Your task to perform on an android device: add a contact Image 0: 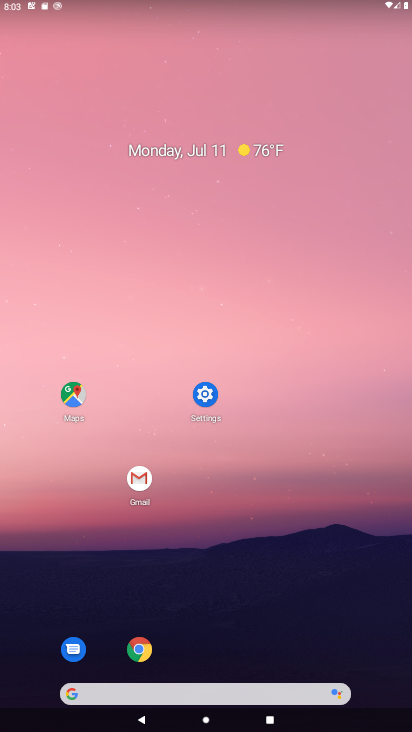
Step 0: drag from (387, 690) to (294, 154)
Your task to perform on an android device: add a contact Image 1: 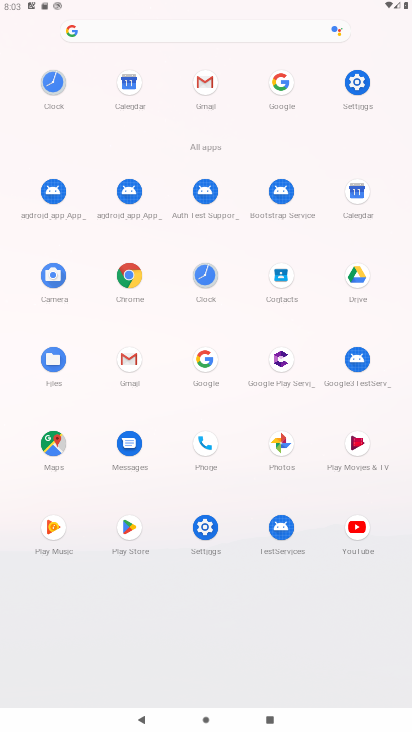
Step 1: click (283, 274)
Your task to perform on an android device: add a contact Image 2: 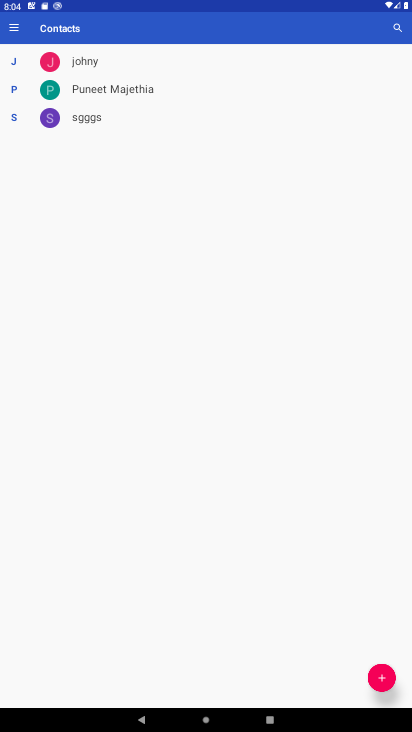
Step 2: click (380, 680)
Your task to perform on an android device: add a contact Image 3: 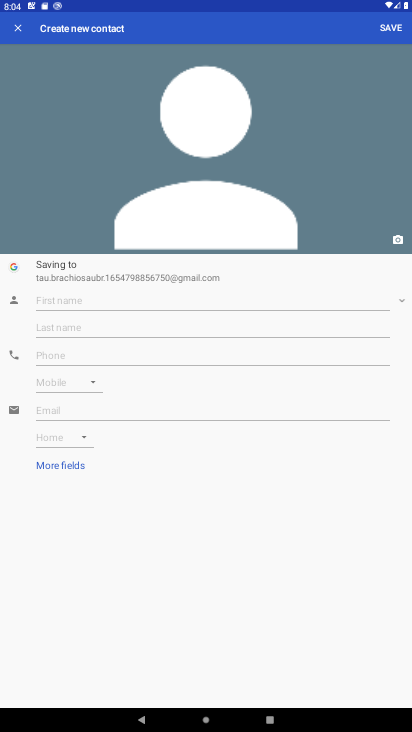
Step 3: click (105, 299)
Your task to perform on an android device: add a contact Image 4: 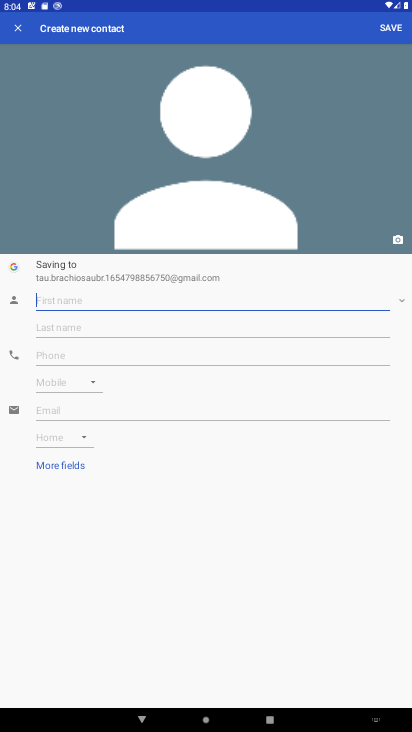
Step 4: type "yssjysfdyhfyf"
Your task to perform on an android device: add a contact Image 5: 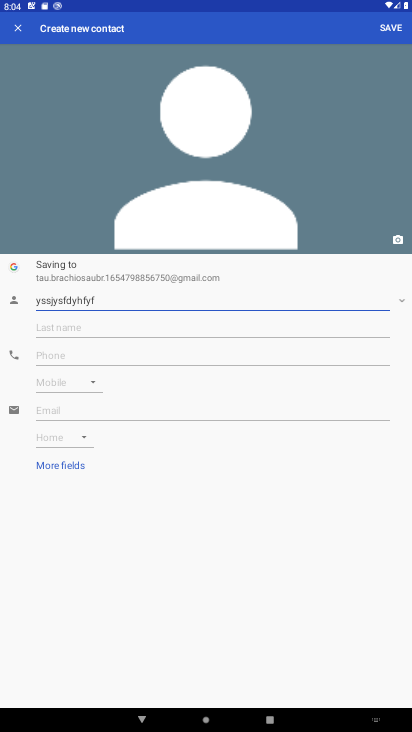
Step 5: click (102, 324)
Your task to perform on an android device: add a contact Image 6: 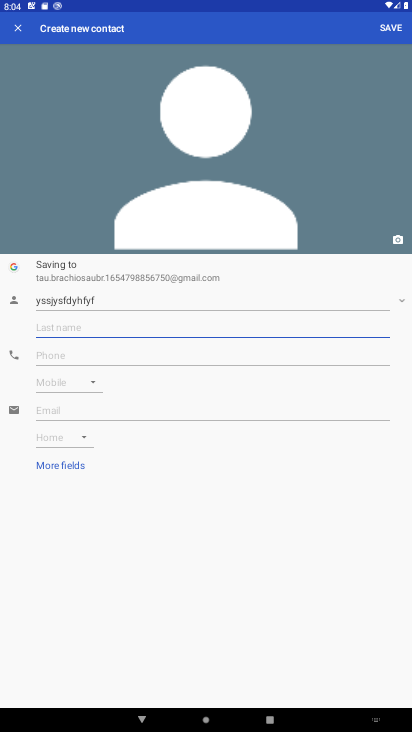
Step 6: type "ddhfcabmtdc"
Your task to perform on an android device: add a contact Image 7: 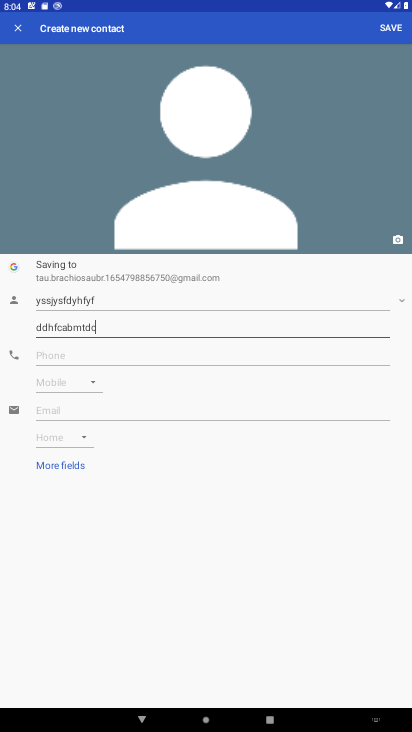
Step 7: click (131, 356)
Your task to perform on an android device: add a contact Image 8: 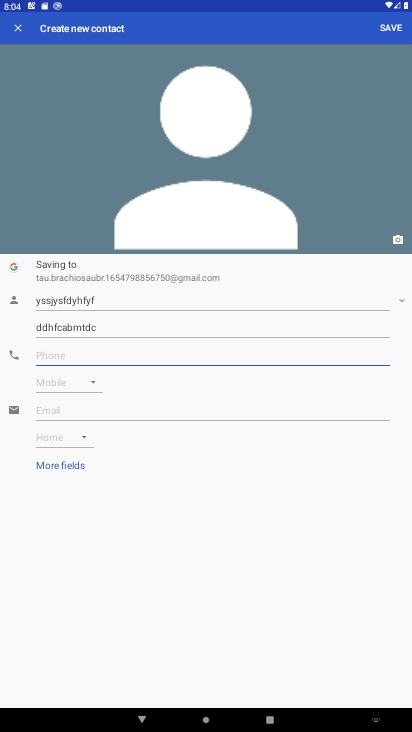
Step 8: type "656553921965"
Your task to perform on an android device: add a contact Image 9: 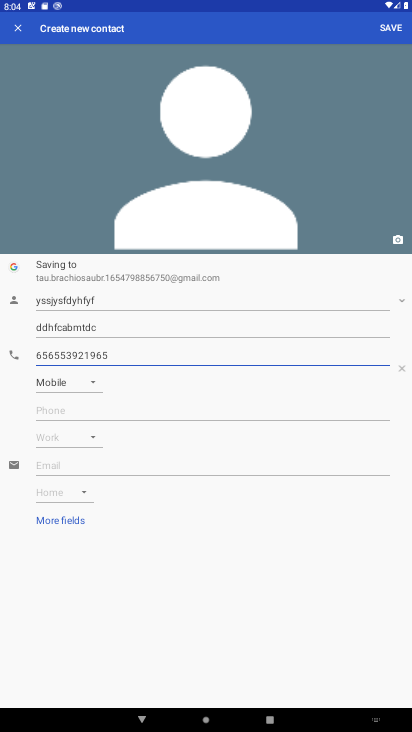
Step 9: click (385, 27)
Your task to perform on an android device: add a contact Image 10: 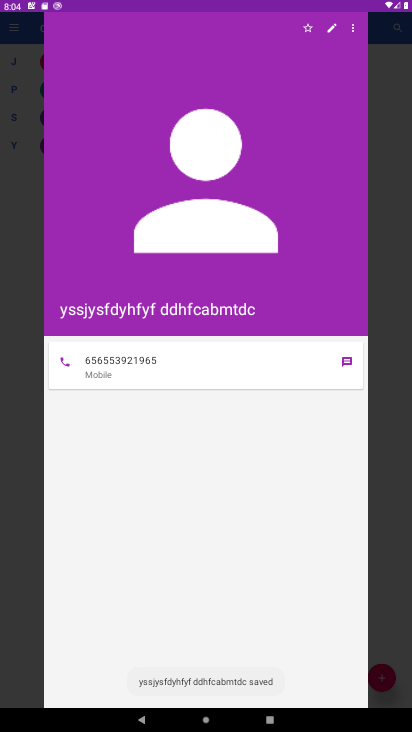
Step 10: task complete